Your task to perform on an android device: Show me the alarms in the clock app Image 0: 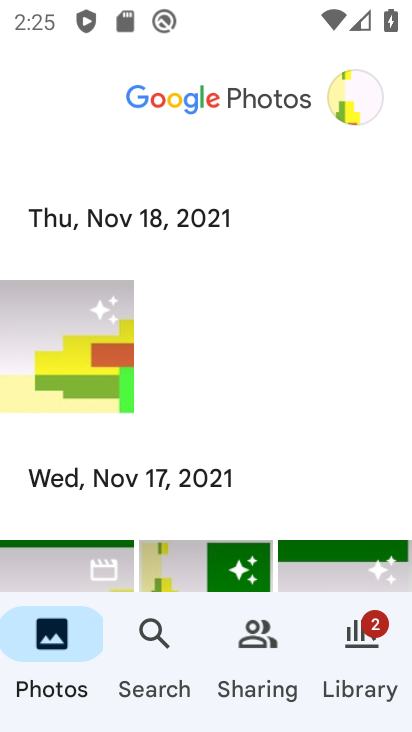
Step 0: press home button
Your task to perform on an android device: Show me the alarms in the clock app Image 1: 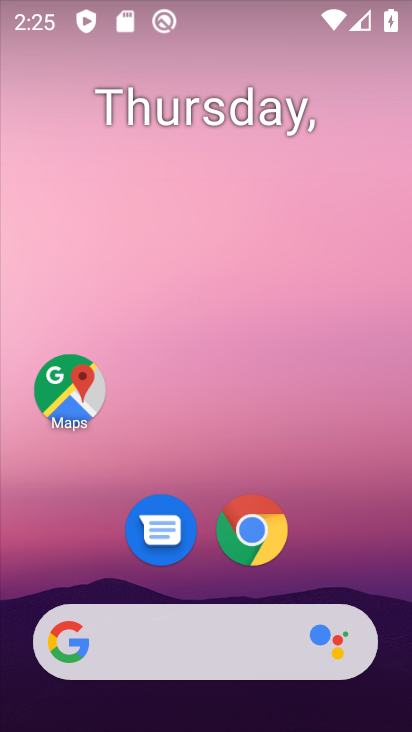
Step 1: drag from (169, 698) to (118, 8)
Your task to perform on an android device: Show me the alarms in the clock app Image 2: 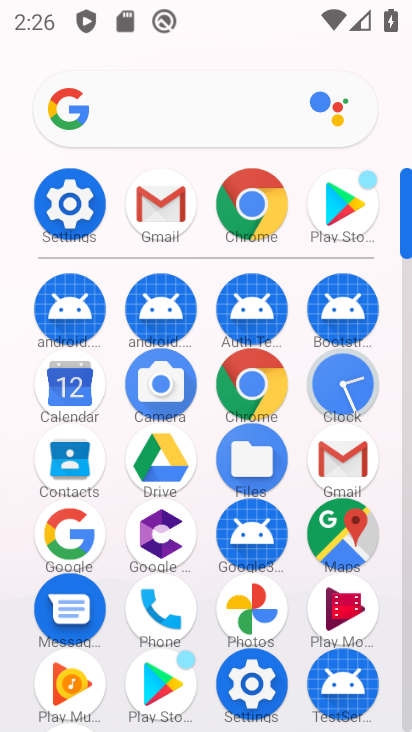
Step 2: click (337, 380)
Your task to perform on an android device: Show me the alarms in the clock app Image 3: 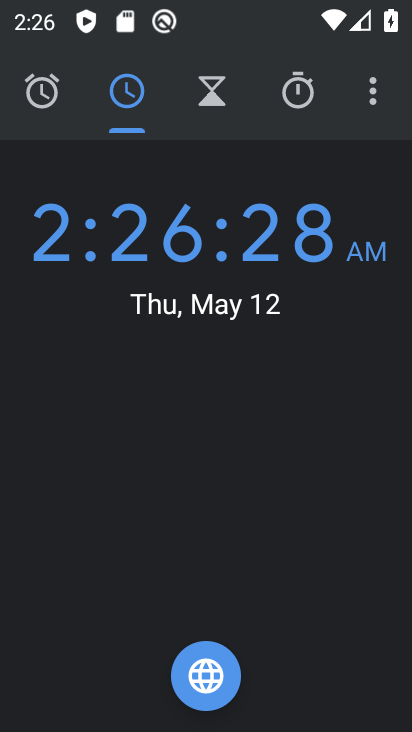
Step 3: click (39, 90)
Your task to perform on an android device: Show me the alarms in the clock app Image 4: 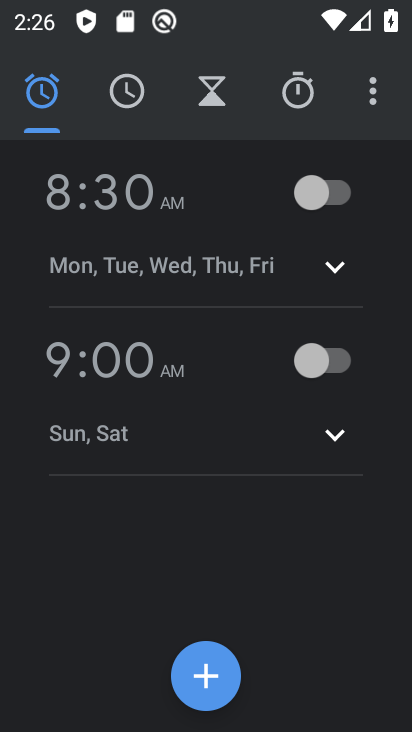
Step 4: click (206, 654)
Your task to perform on an android device: Show me the alarms in the clock app Image 5: 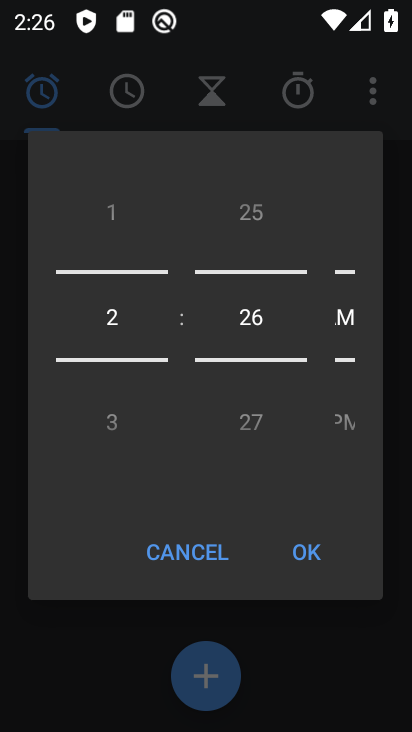
Step 5: click (294, 546)
Your task to perform on an android device: Show me the alarms in the clock app Image 6: 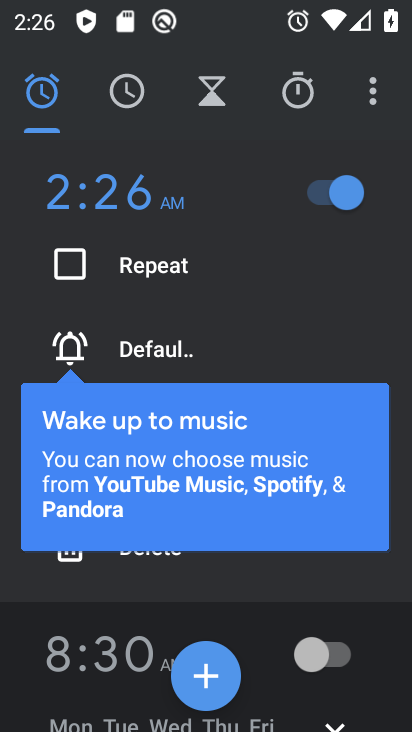
Step 6: task complete